Your task to perform on an android device: Search for the best way to make a resume. Image 0: 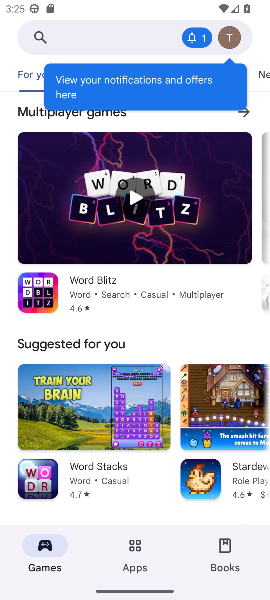
Step 0: press home button
Your task to perform on an android device: Search for the best way to make a resume. Image 1: 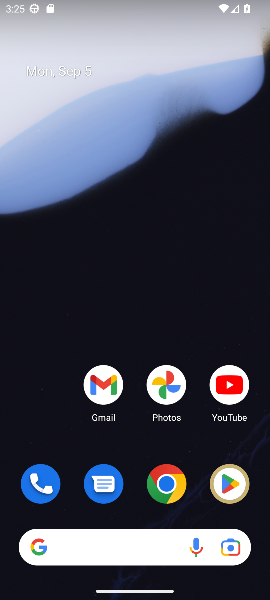
Step 1: click (166, 489)
Your task to perform on an android device: Search for the best way to make a resume. Image 2: 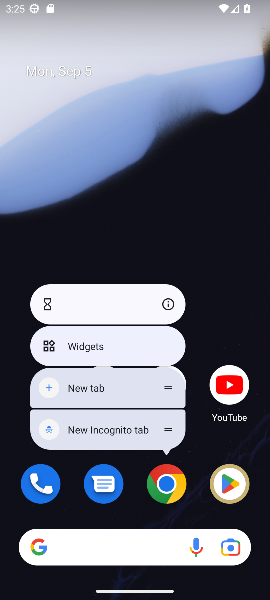
Step 2: click (166, 489)
Your task to perform on an android device: Search for the best way to make a resume. Image 3: 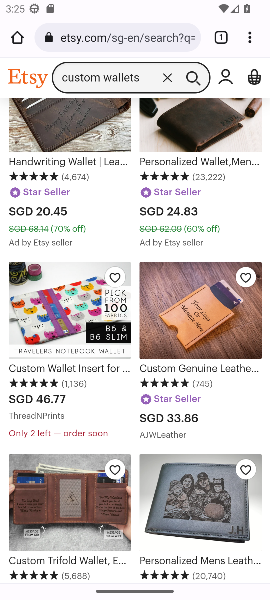
Step 3: click (149, 35)
Your task to perform on an android device: Search for the best way to make a resume. Image 4: 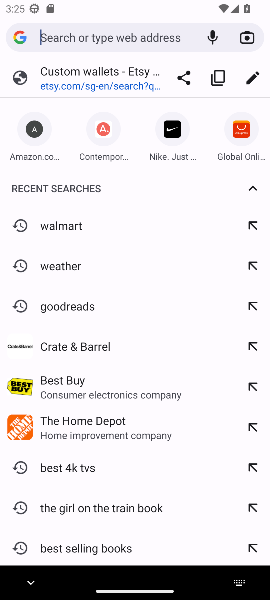
Step 4: type "best way to make a resume"
Your task to perform on an android device: Search for the best way to make a resume. Image 5: 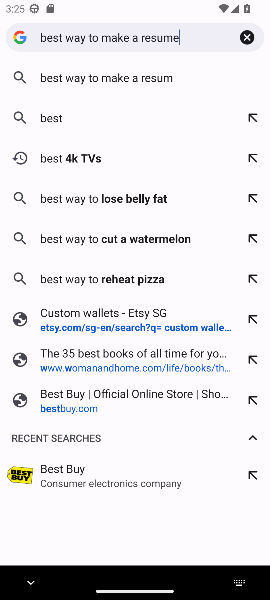
Step 5: press enter
Your task to perform on an android device: Search for the best way to make a resume. Image 6: 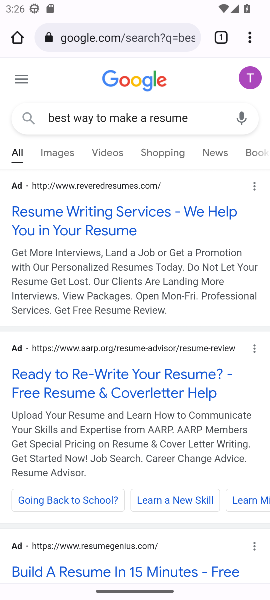
Step 6: task complete